Your task to perform on an android device: Check the weather Image 0: 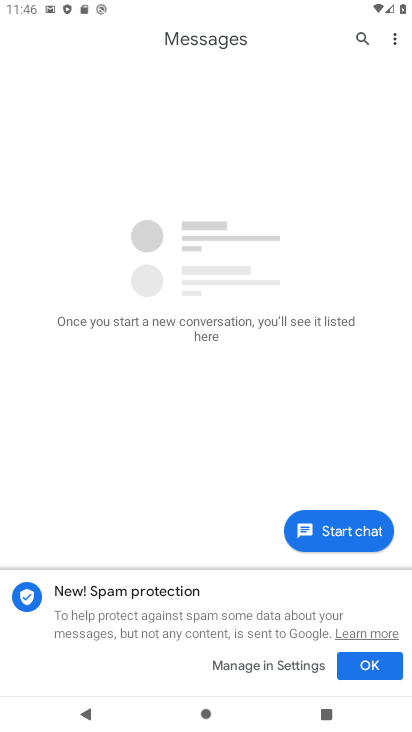
Step 0: press home button
Your task to perform on an android device: Check the weather Image 1: 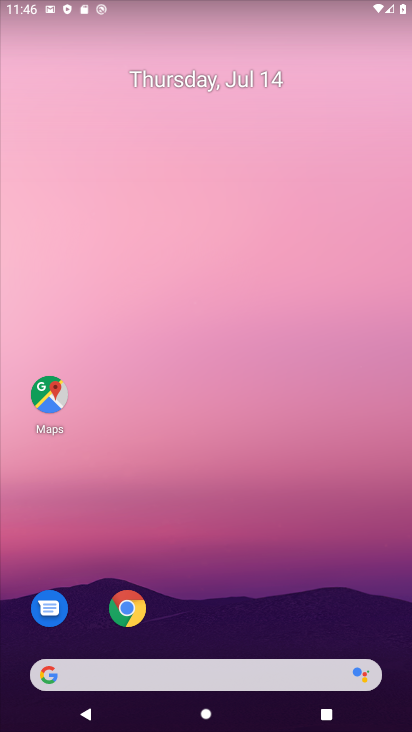
Step 1: drag from (198, 683) to (236, 116)
Your task to perform on an android device: Check the weather Image 2: 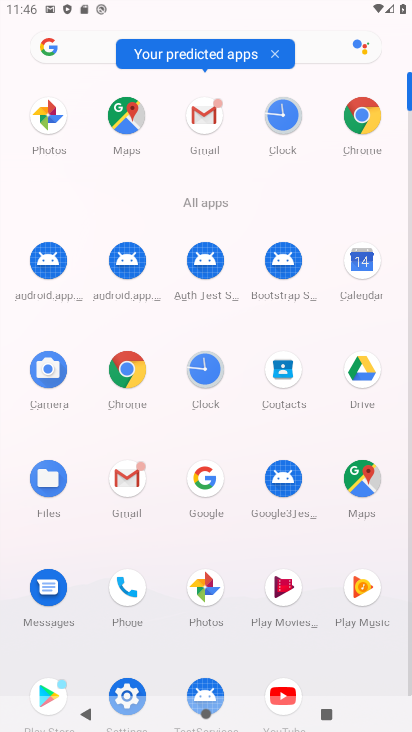
Step 2: click (212, 493)
Your task to perform on an android device: Check the weather Image 3: 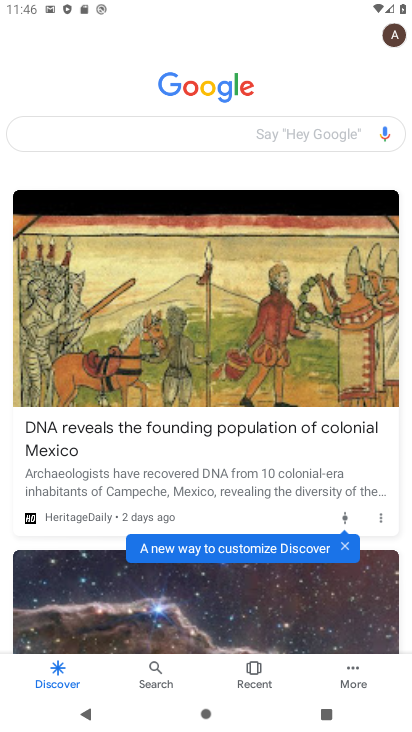
Step 3: click (151, 138)
Your task to perform on an android device: Check the weather Image 4: 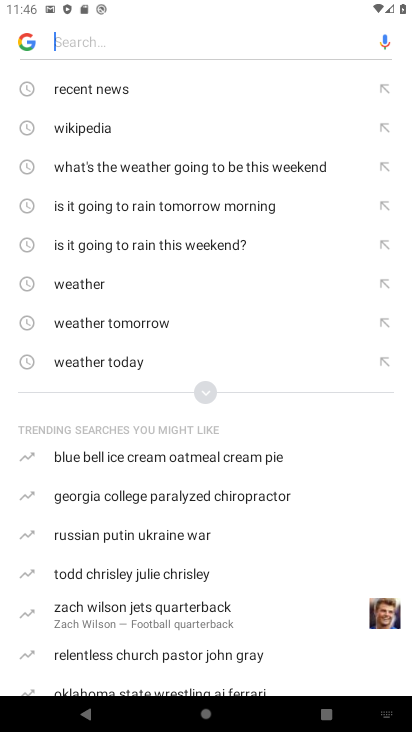
Step 4: type "weather"
Your task to perform on an android device: Check the weather Image 5: 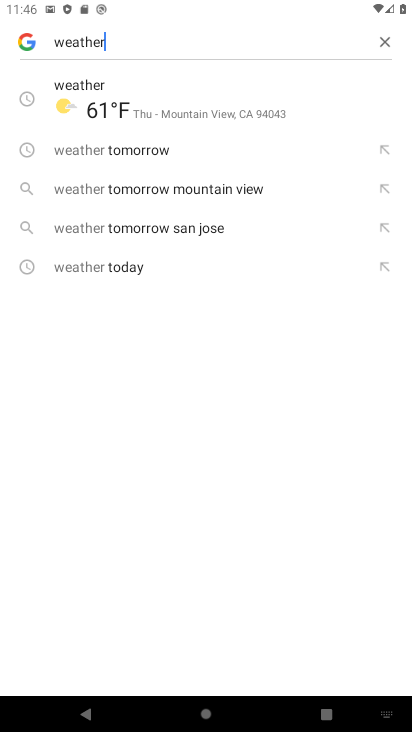
Step 5: click (125, 85)
Your task to perform on an android device: Check the weather Image 6: 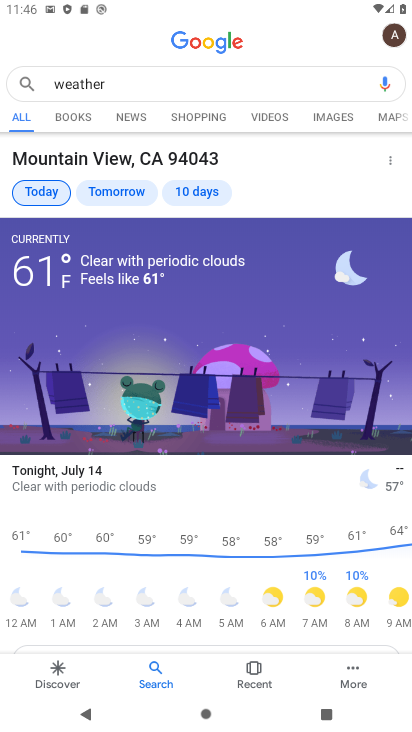
Step 6: task complete